Your task to perform on an android device: Go to network settings Image 0: 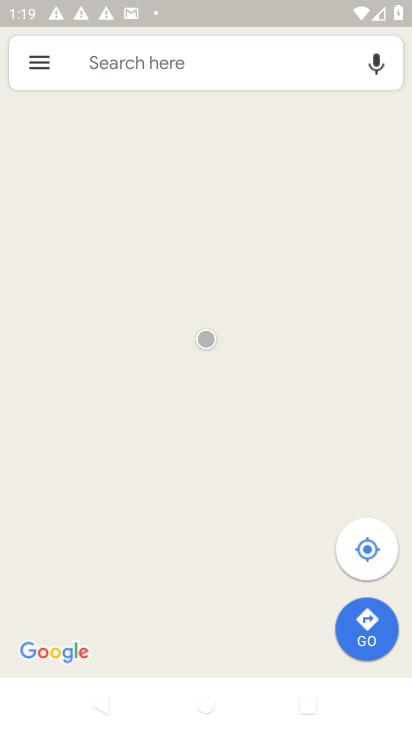
Step 0: press home button
Your task to perform on an android device: Go to network settings Image 1: 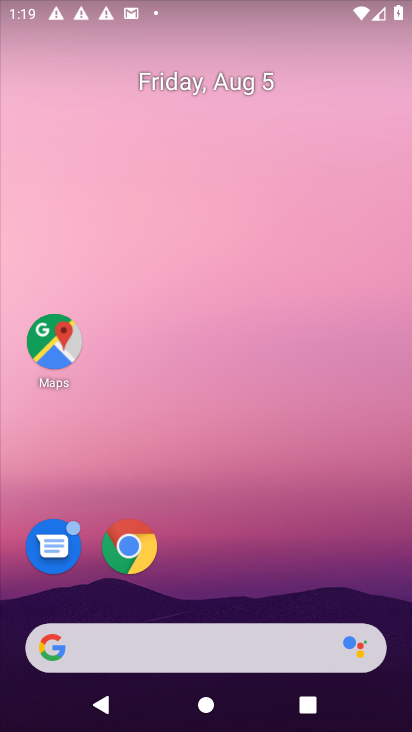
Step 1: drag from (215, 596) to (232, 79)
Your task to perform on an android device: Go to network settings Image 2: 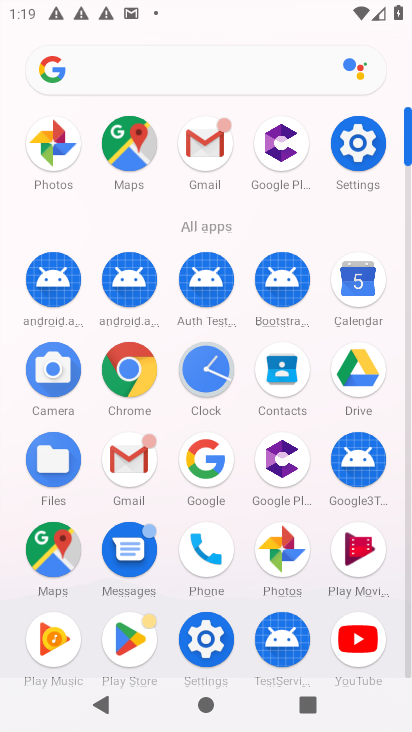
Step 2: click (356, 131)
Your task to perform on an android device: Go to network settings Image 3: 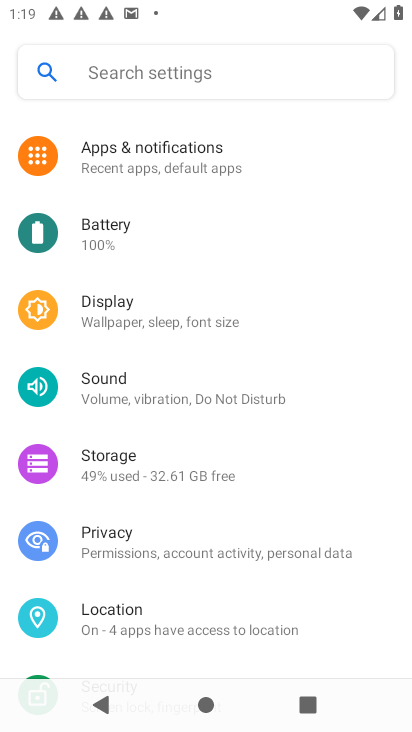
Step 3: drag from (162, 173) to (167, 639)
Your task to perform on an android device: Go to network settings Image 4: 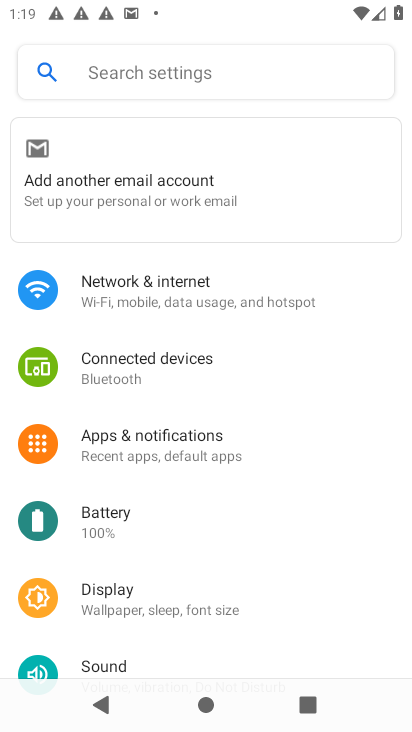
Step 4: click (222, 279)
Your task to perform on an android device: Go to network settings Image 5: 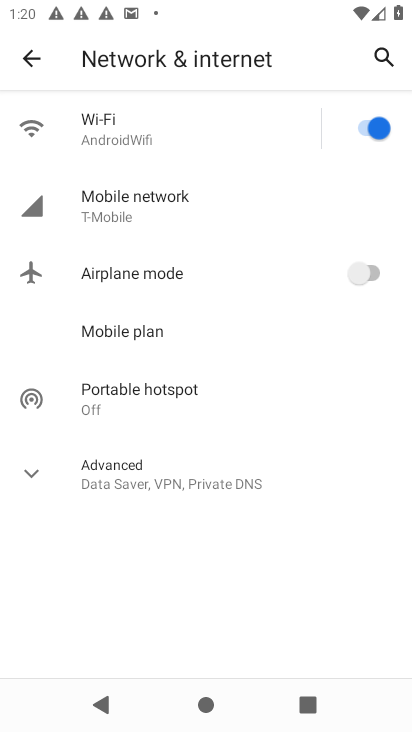
Step 5: click (39, 472)
Your task to perform on an android device: Go to network settings Image 6: 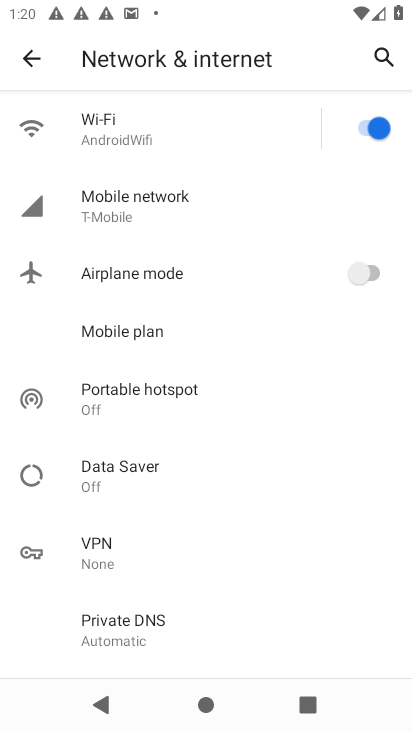
Step 6: task complete